Your task to perform on an android device: Open Amazon Image 0: 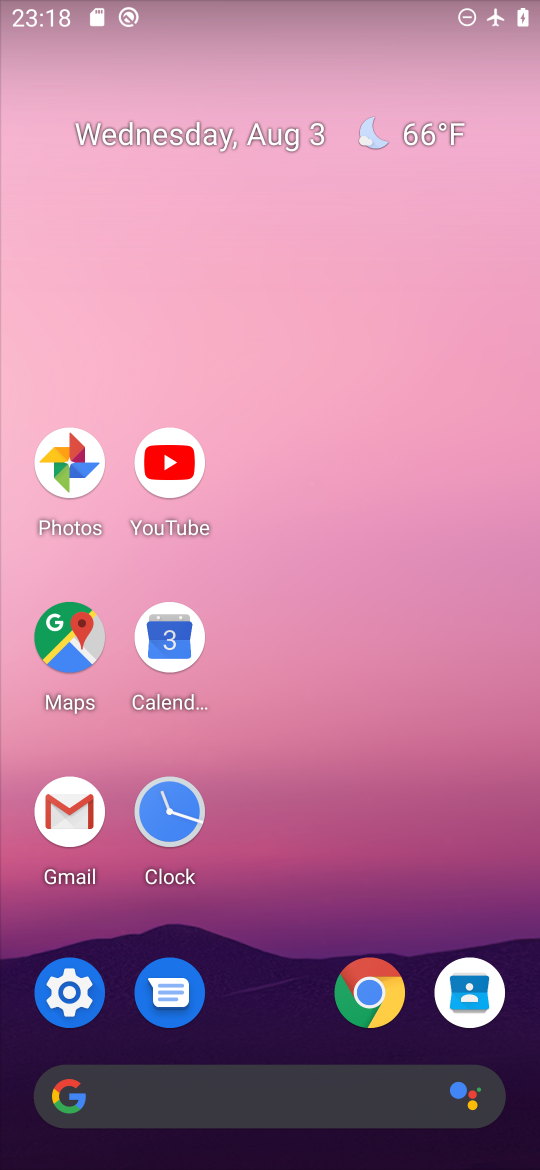
Step 0: click (371, 996)
Your task to perform on an android device: Open Amazon Image 1: 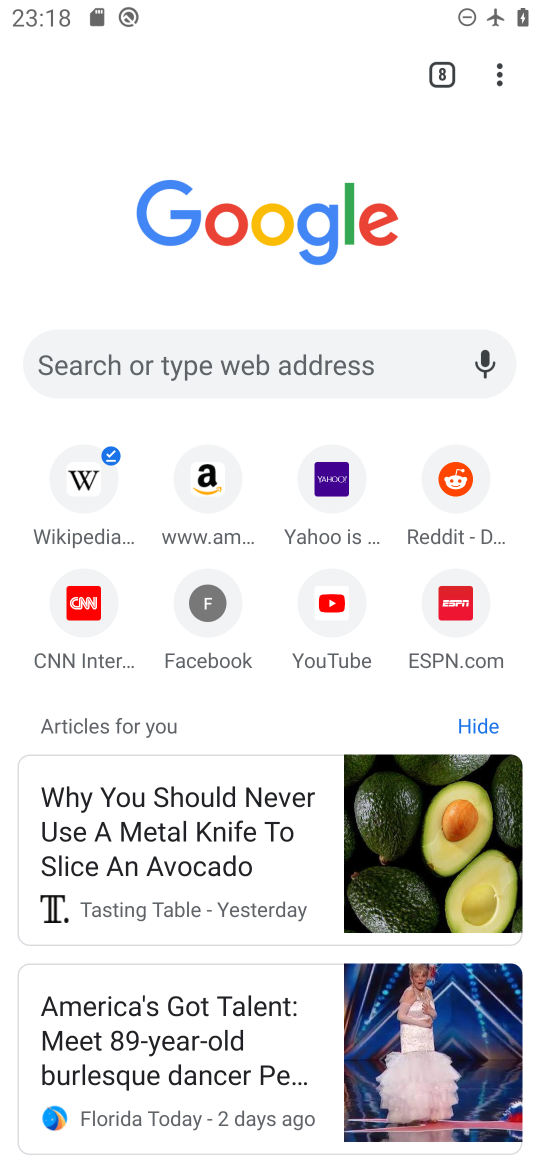
Step 1: click (202, 464)
Your task to perform on an android device: Open Amazon Image 2: 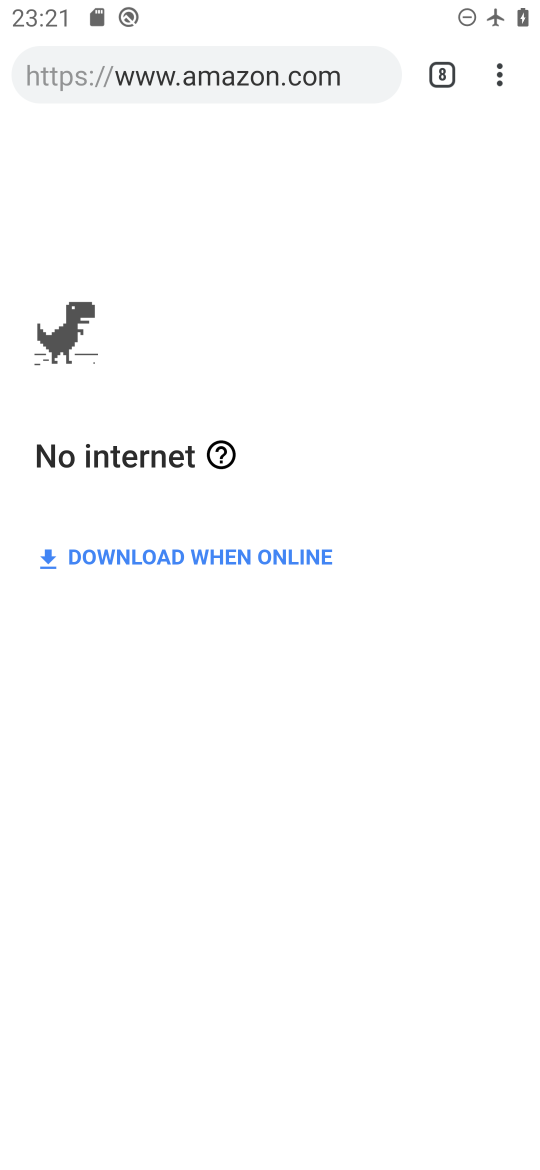
Step 2: task complete